Your task to perform on an android device: Set the phone to "Do not disturb". Image 0: 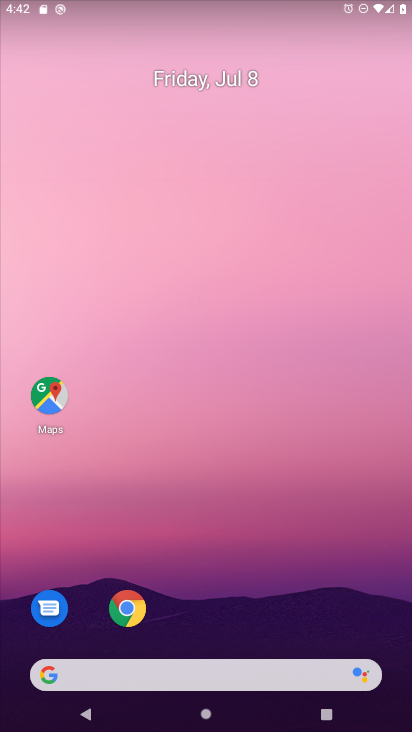
Step 0: drag from (301, 564) to (318, 4)
Your task to perform on an android device: Set the phone to "Do not disturb". Image 1: 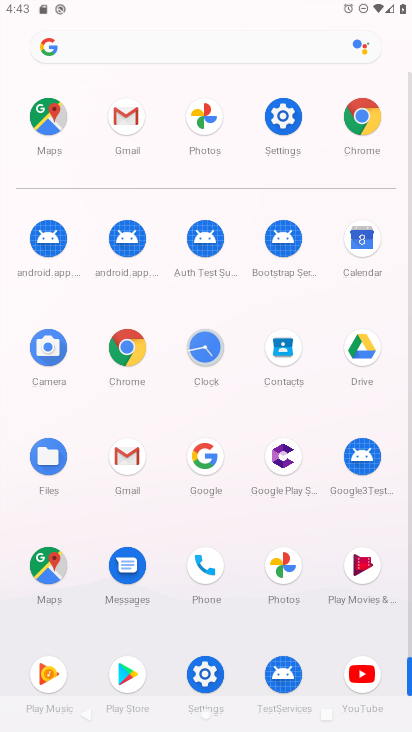
Step 1: click (282, 123)
Your task to perform on an android device: Set the phone to "Do not disturb". Image 2: 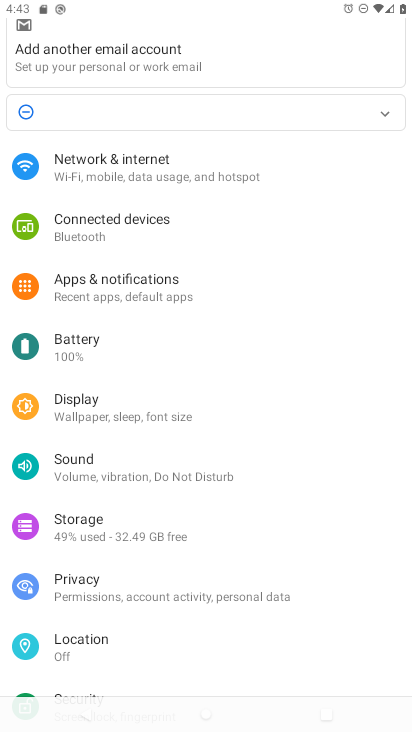
Step 2: click (150, 468)
Your task to perform on an android device: Set the phone to "Do not disturb". Image 3: 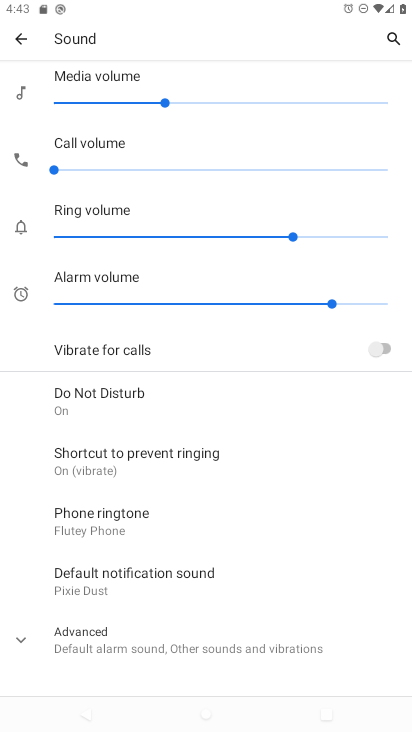
Step 3: click (77, 402)
Your task to perform on an android device: Set the phone to "Do not disturb". Image 4: 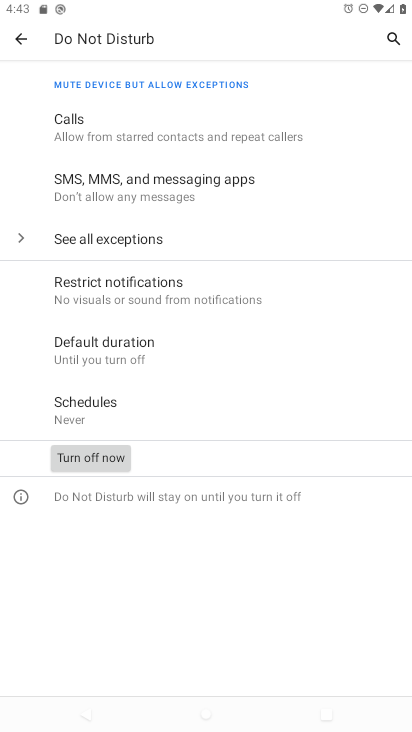
Step 4: task complete